Your task to perform on an android device: empty trash in the gmail app Image 0: 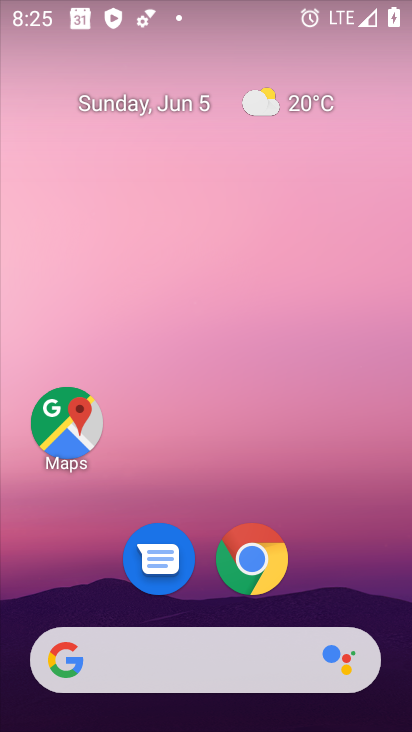
Step 0: drag from (349, 530) to (341, 40)
Your task to perform on an android device: empty trash in the gmail app Image 1: 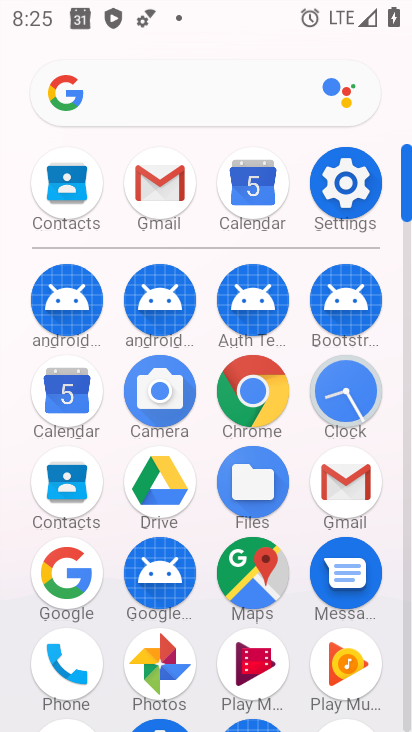
Step 1: click (176, 181)
Your task to perform on an android device: empty trash in the gmail app Image 2: 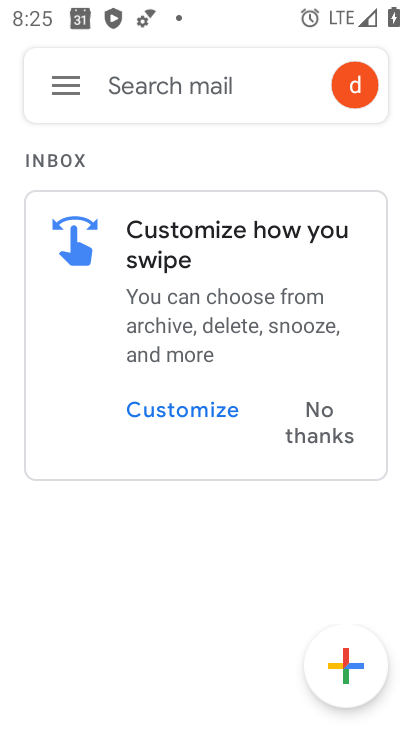
Step 2: click (58, 85)
Your task to perform on an android device: empty trash in the gmail app Image 3: 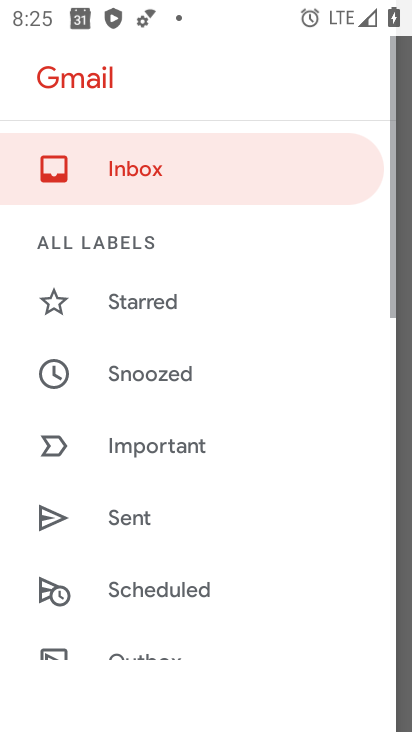
Step 3: drag from (228, 603) to (334, 124)
Your task to perform on an android device: empty trash in the gmail app Image 4: 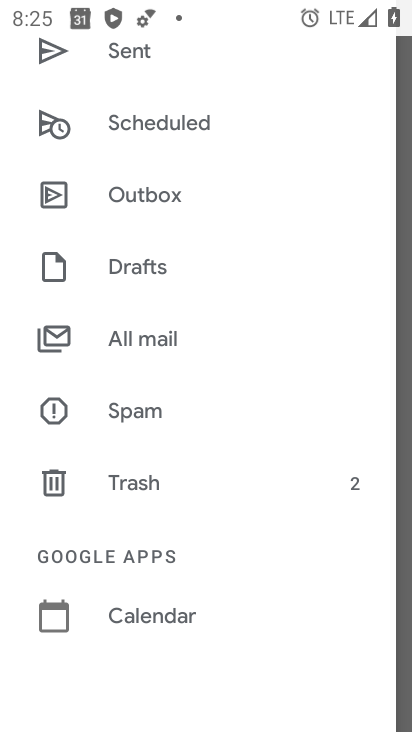
Step 4: click (180, 472)
Your task to perform on an android device: empty trash in the gmail app Image 5: 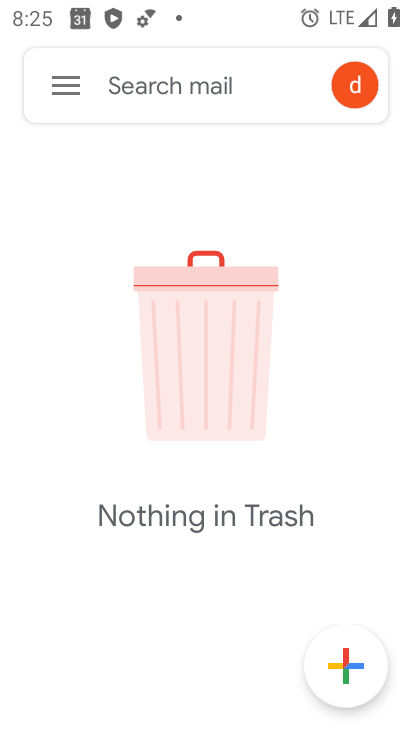
Step 5: task complete